Your task to perform on an android device: Search for the best rated book on Goodreads. Image 0: 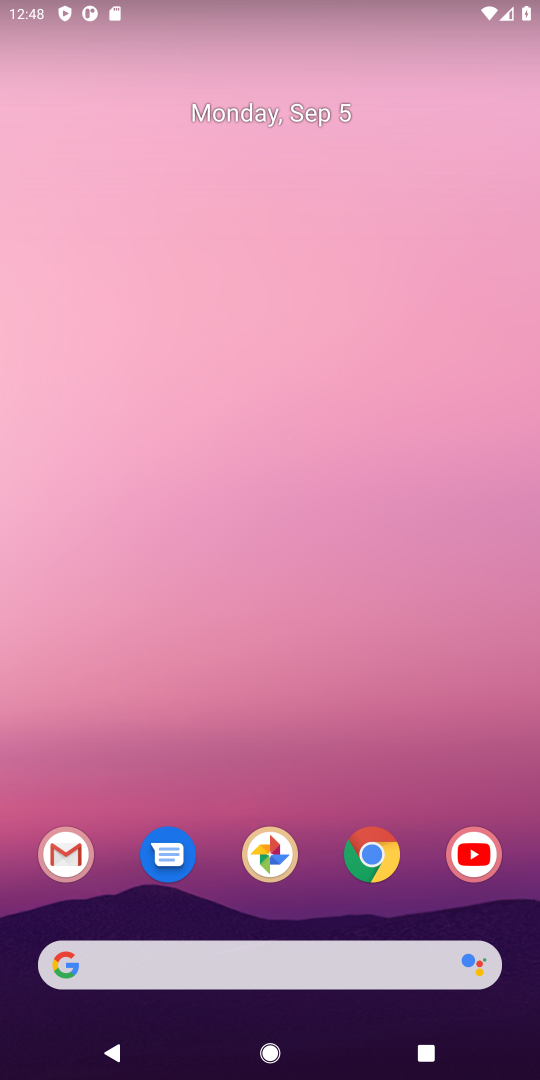
Step 0: click (388, 848)
Your task to perform on an android device: Search for the best rated book on Goodreads. Image 1: 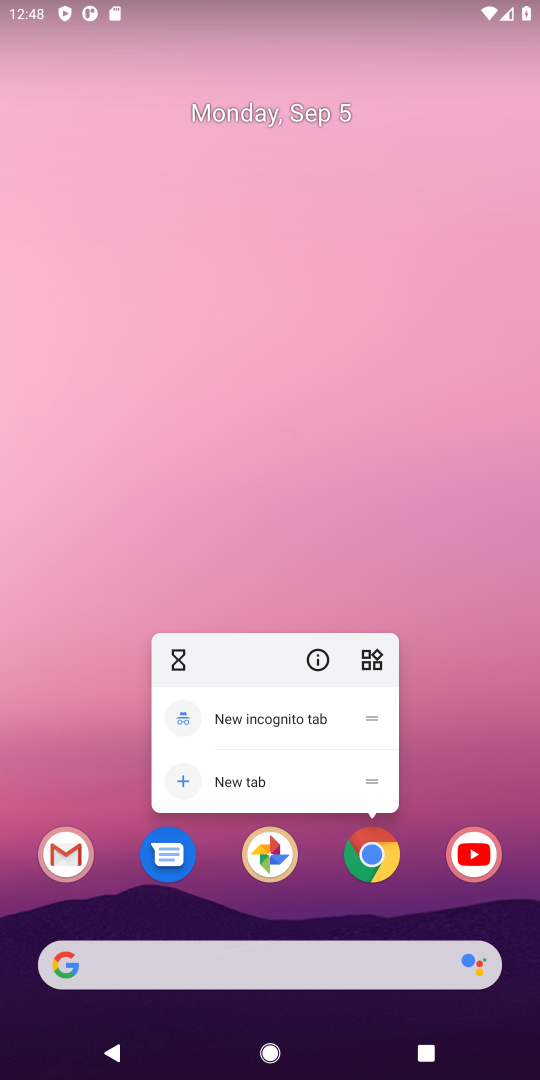
Step 1: click (374, 851)
Your task to perform on an android device: Search for the best rated book on Goodreads. Image 2: 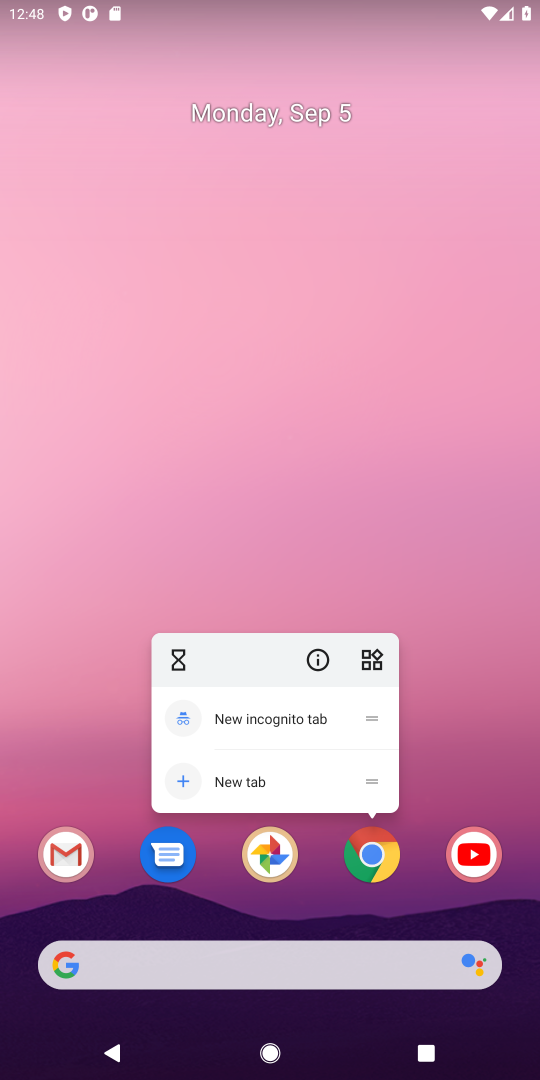
Step 2: click (367, 854)
Your task to perform on an android device: Search for the best rated book on Goodreads. Image 3: 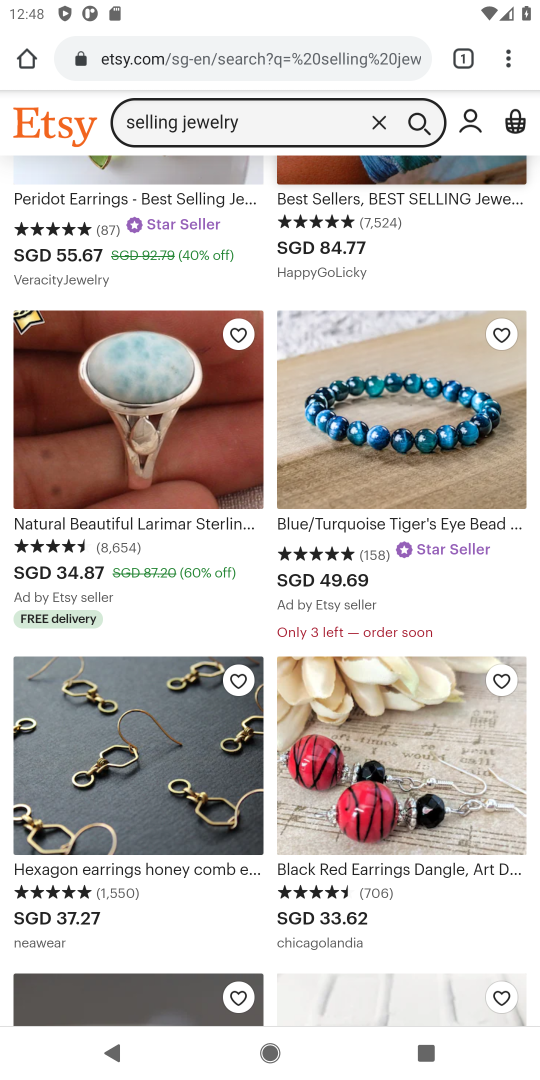
Step 3: click (366, 55)
Your task to perform on an android device: Search for the best rated book on Goodreads. Image 4: 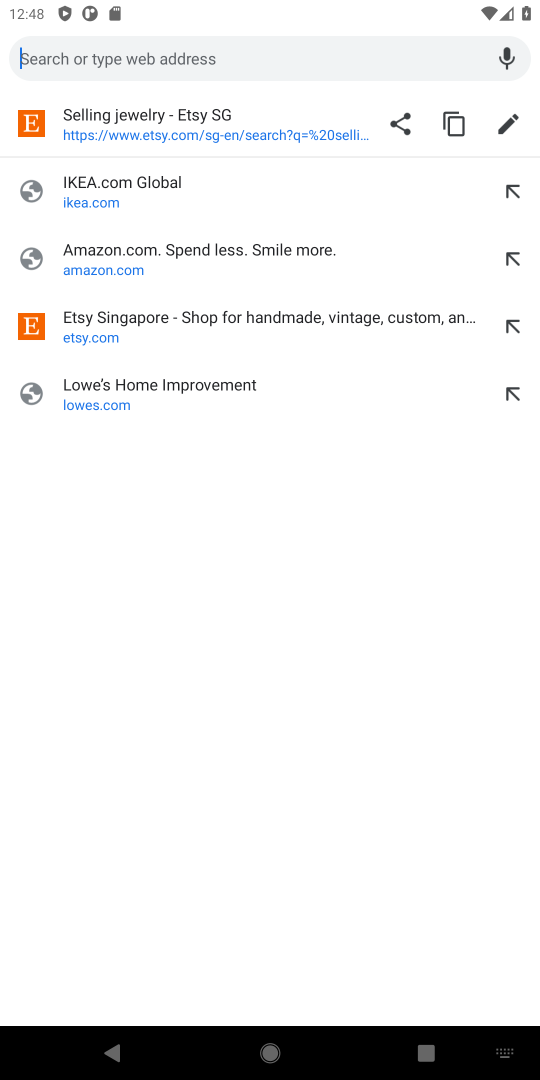
Step 4: press enter
Your task to perform on an android device: Search for the best rated book on Goodreads. Image 5: 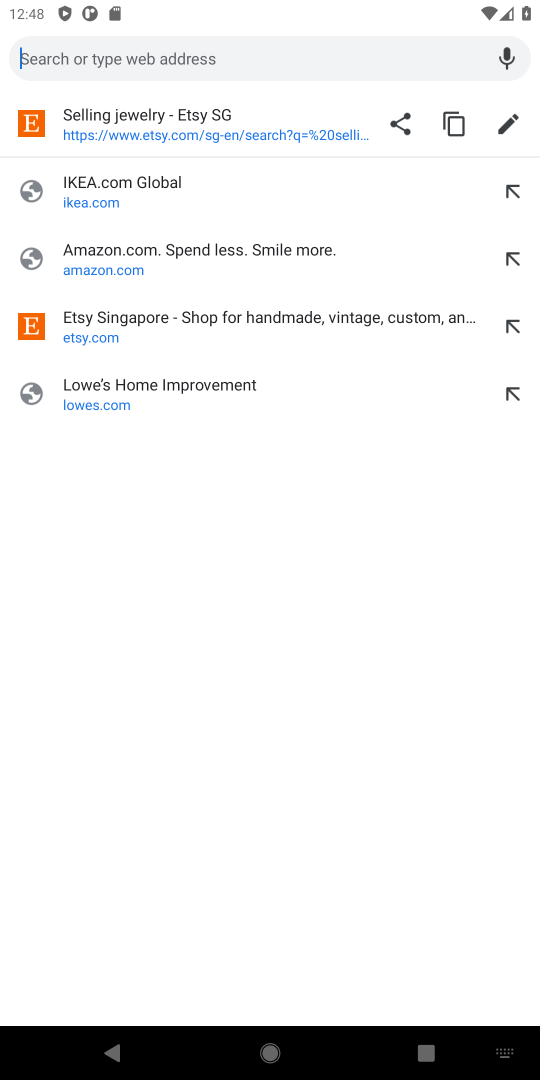
Step 5: type "Goodreads"
Your task to perform on an android device: Search for the best rated book on Goodreads. Image 6: 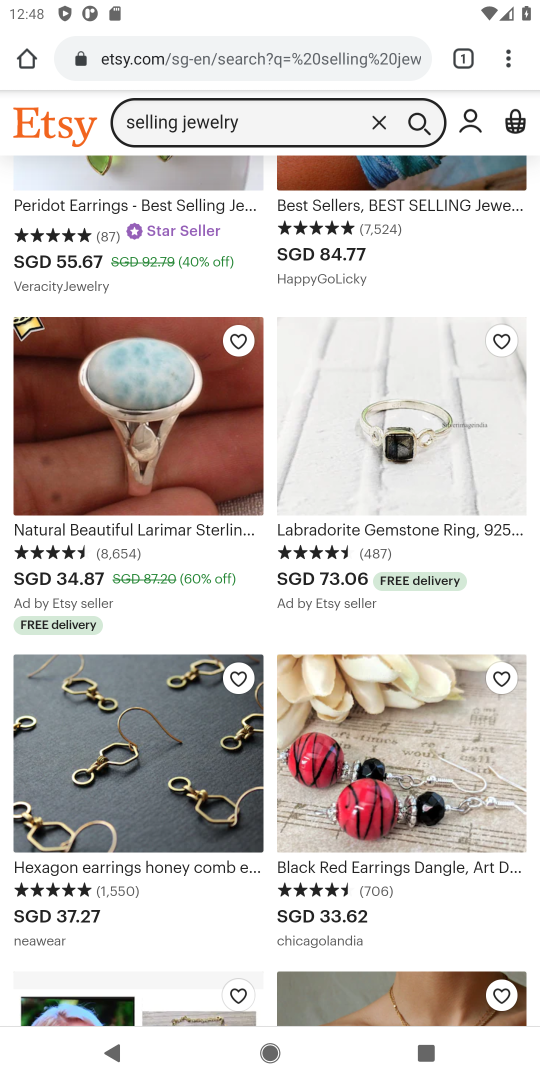
Step 6: click (328, 58)
Your task to perform on an android device: Search for the best rated book on Goodreads. Image 7: 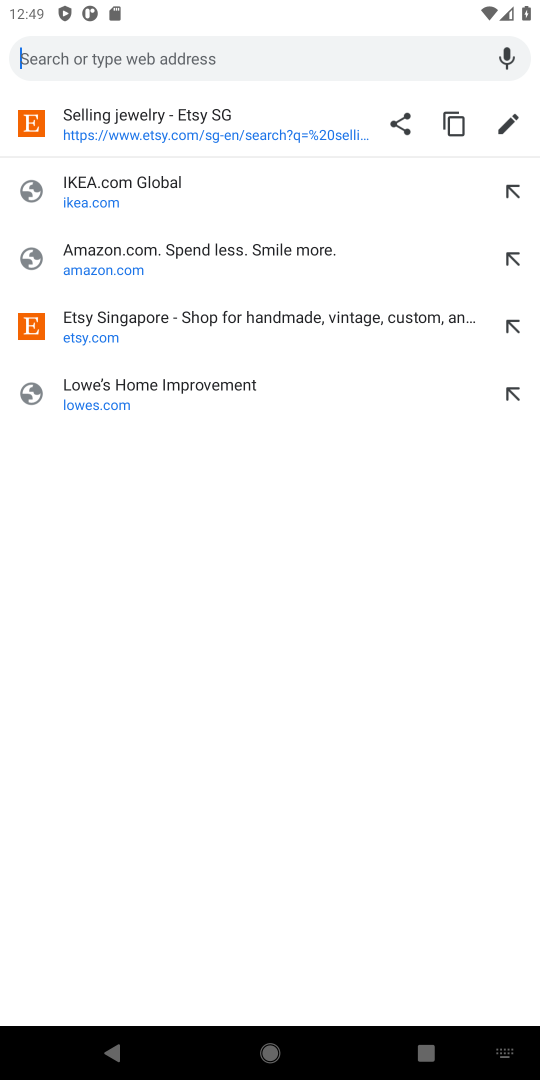
Step 7: type "Goodreads"
Your task to perform on an android device: Search for the best rated book on Goodreads. Image 8: 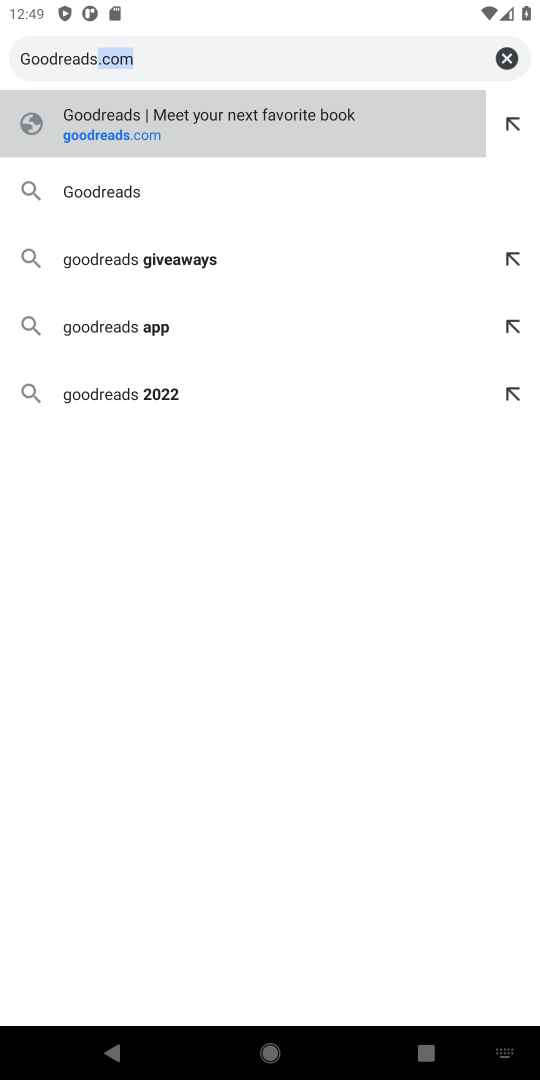
Step 8: press enter
Your task to perform on an android device: Search for the best rated book on Goodreads. Image 9: 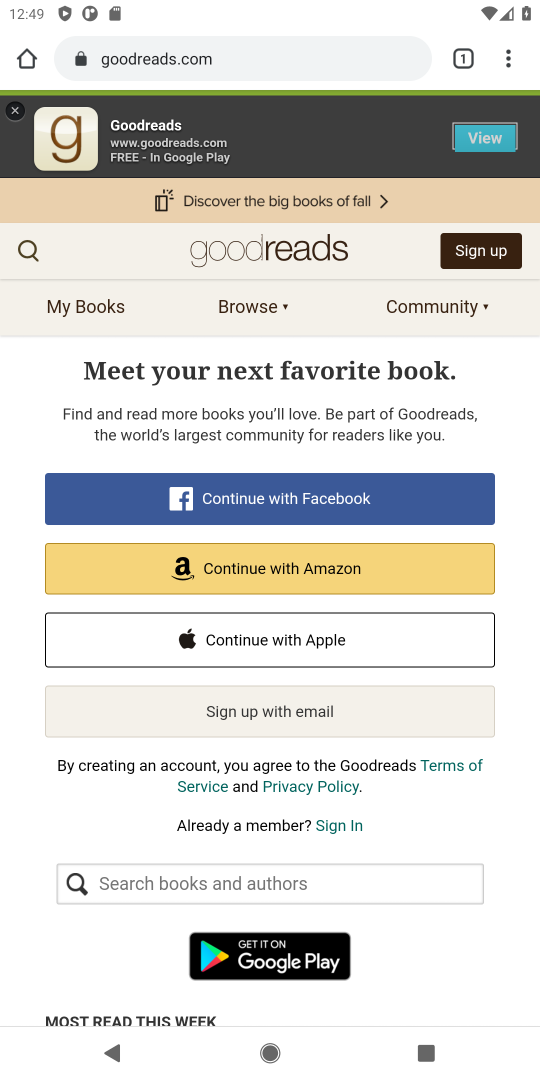
Step 9: click (31, 240)
Your task to perform on an android device: Search for the best rated book on Goodreads. Image 10: 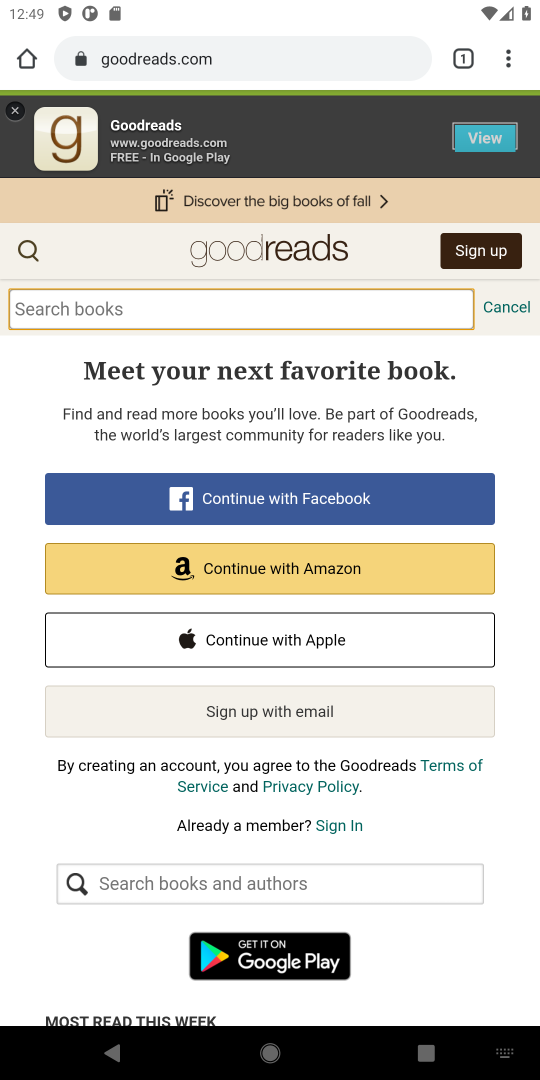
Step 10: click (31, 249)
Your task to perform on an android device: Search for the best rated book on Goodreads. Image 11: 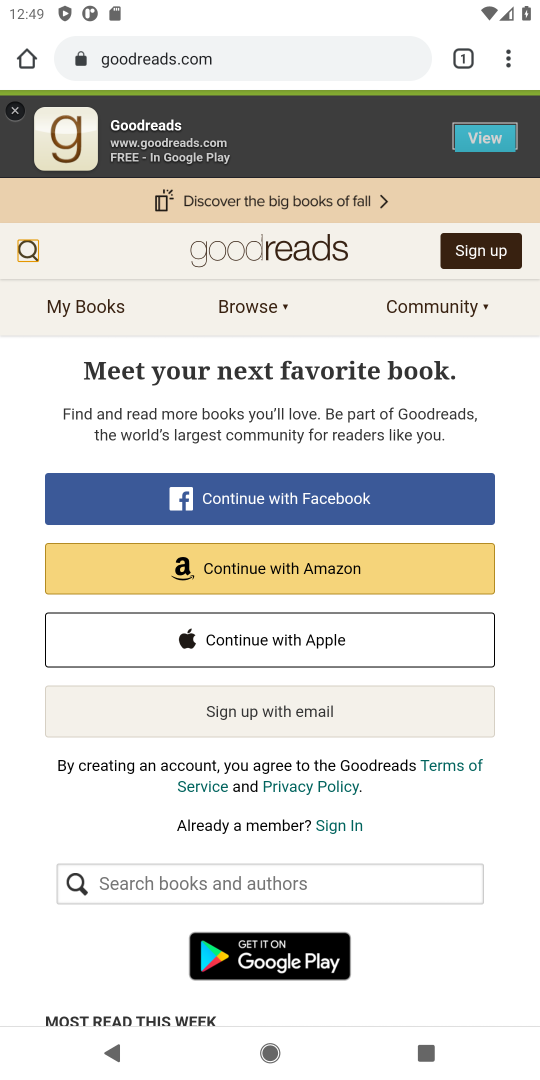
Step 11: click (24, 245)
Your task to perform on an android device: Search for the best rated book on Goodreads. Image 12: 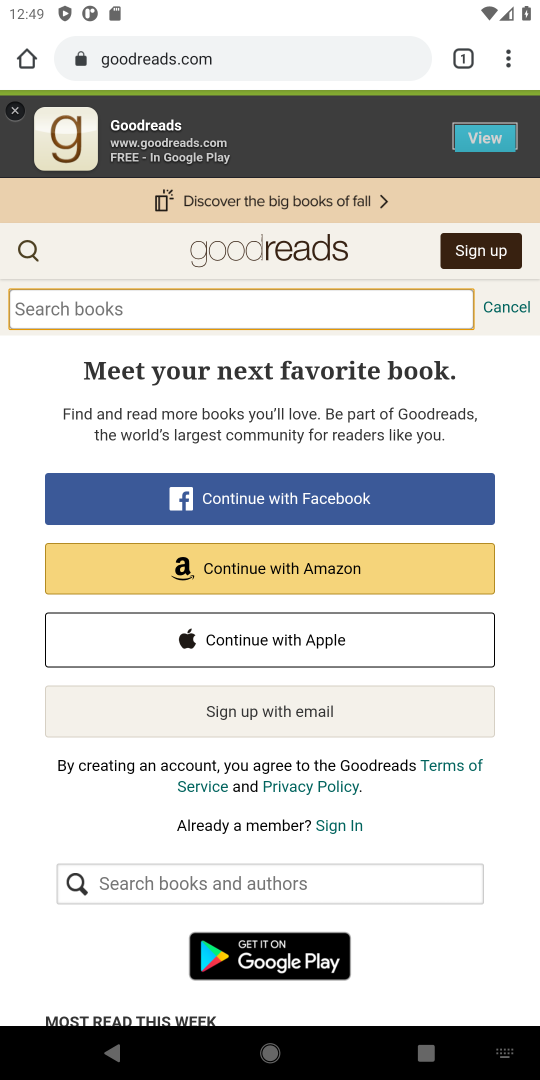
Step 12: click (65, 299)
Your task to perform on an android device: Search for the best rated book on Goodreads. Image 13: 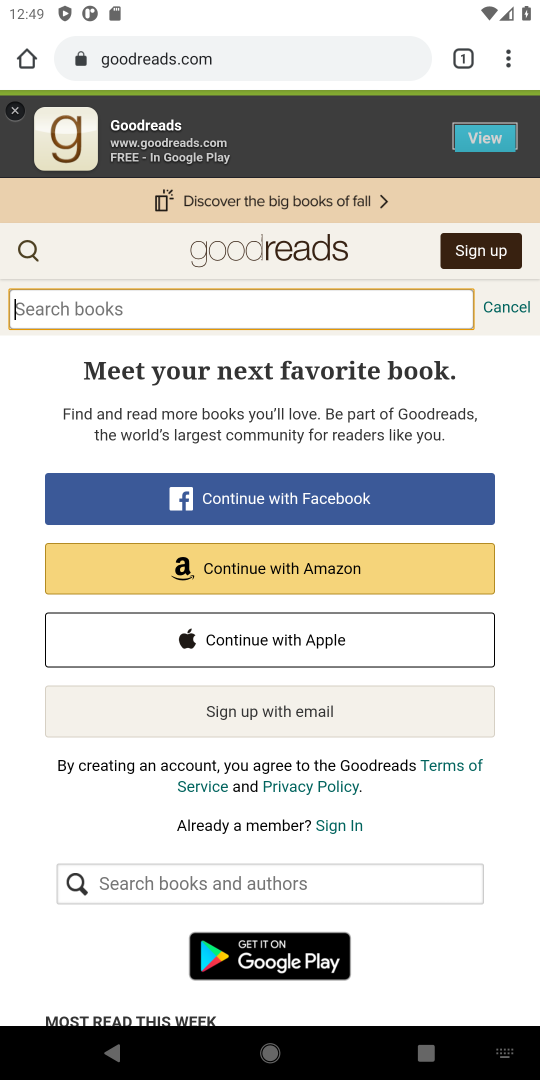
Step 13: press enter
Your task to perform on an android device: Search for the best rated book on Goodreads. Image 14: 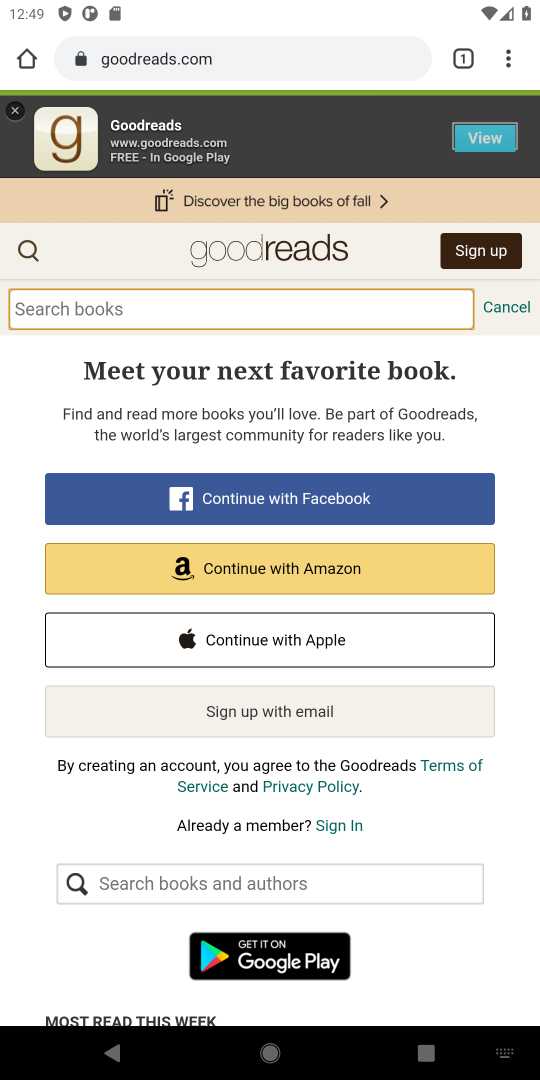
Step 14: type " best rated book"
Your task to perform on an android device: Search for the best rated book on Goodreads. Image 15: 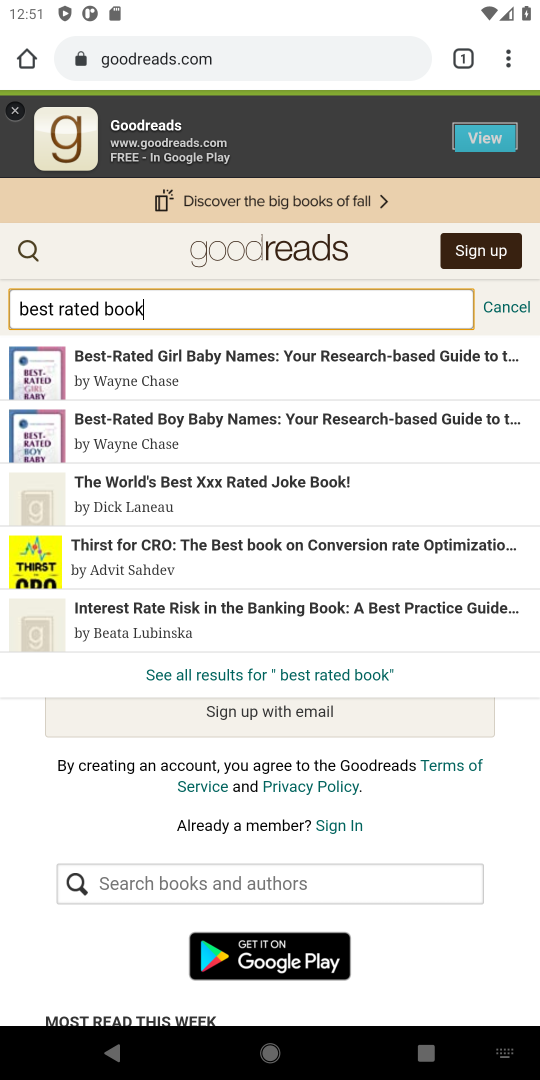
Step 15: task complete